Your task to perform on an android device: Show me recent news Image 0: 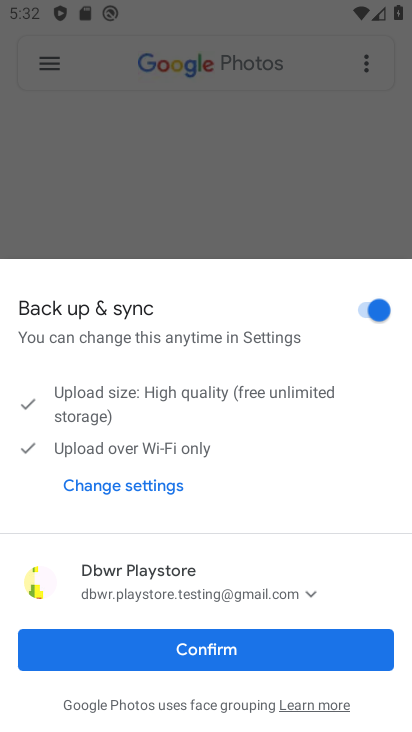
Step 0: click (218, 654)
Your task to perform on an android device: Show me recent news Image 1: 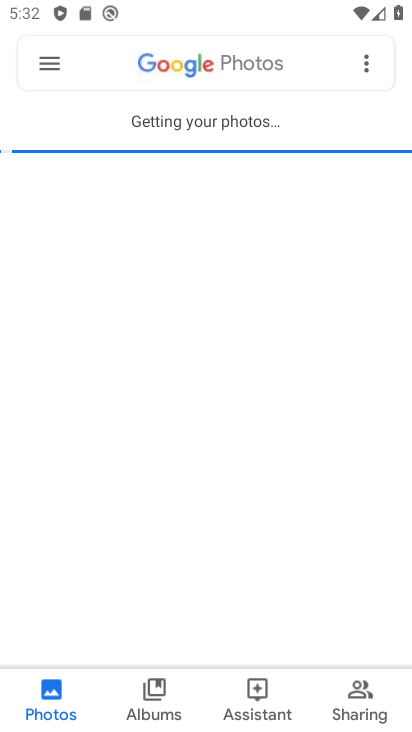
Step 1: press home button
Your task to perform on an android device: Show me recent news Image 2: 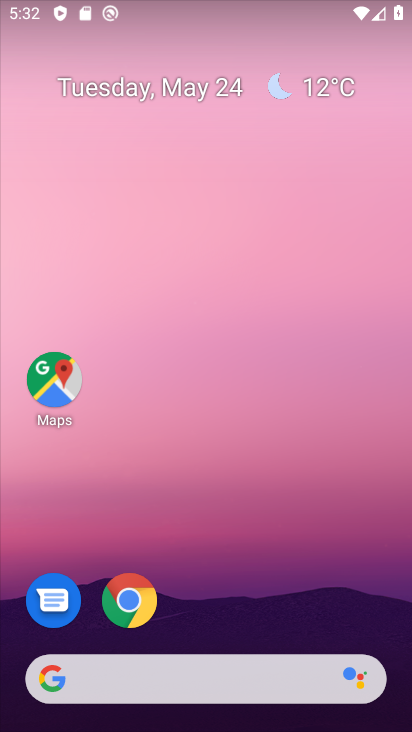
Step 2: drag from (271, 682) to (403, 731)
Your task to perform on an android device: Show me recent news Image 3: 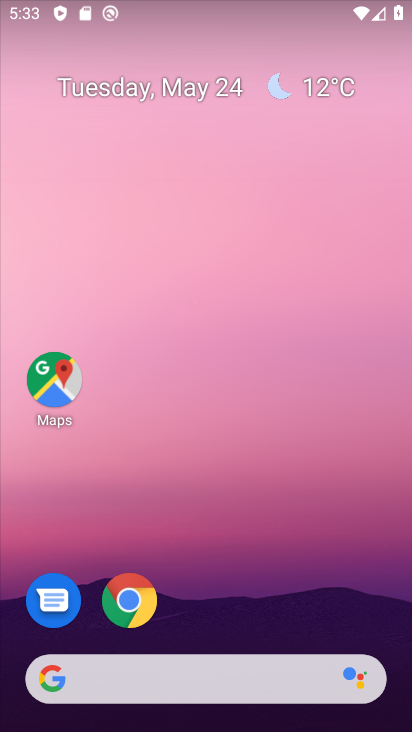
Step 3: drag from (242, 649) to (308, 36)
Your task to perform on an android device: Show me recent news Image 4: 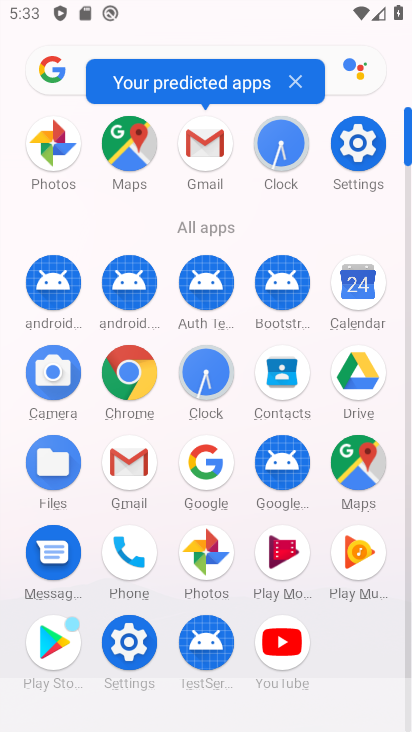
Step 4: click (219, 73)
Your task to perform on an android device: Show me recent news Image 5: 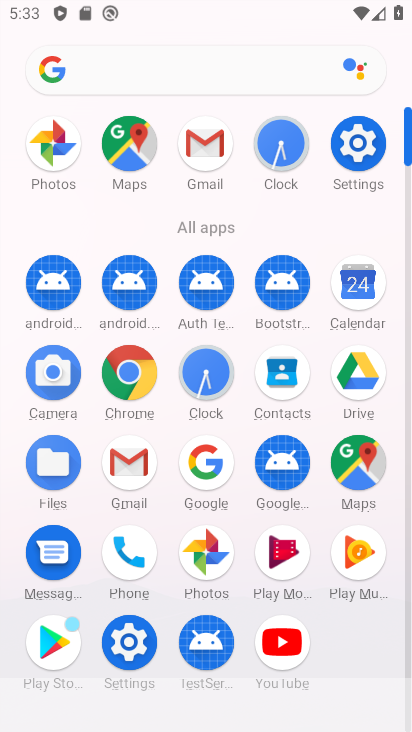
Step 5: click (146, 375)
Your task to perform on an android device: Show me recent news Image 6: 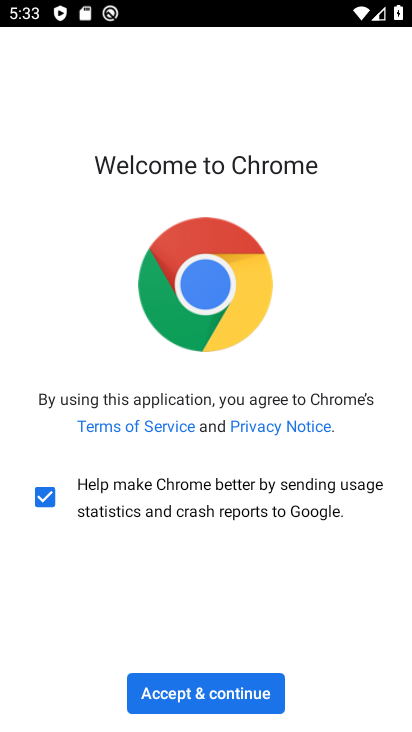
Step 6: click (194, 674)
Your task to perform on an android device: Show me recent news Image 7: 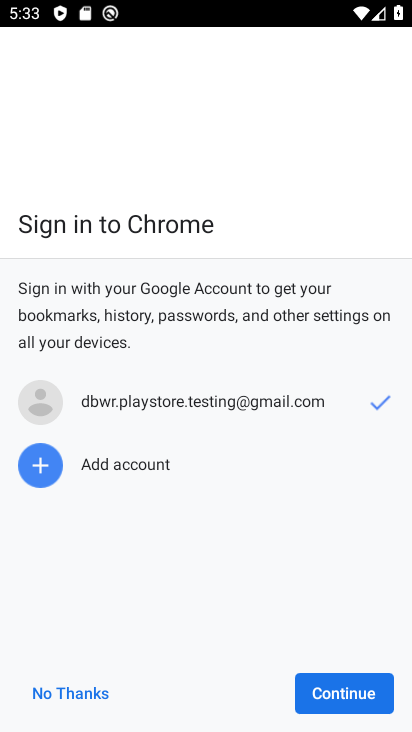
Step 7: click (80, 694)
Your task to perform on an android device: Show me recent news Image 8: 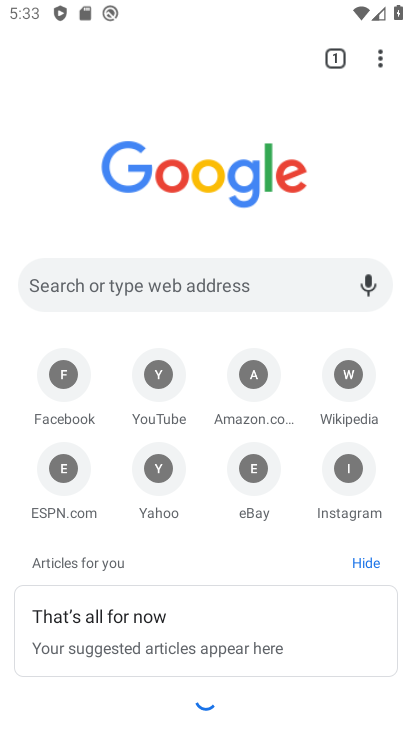
Step 8: click (270, 67)
Your task to perform on an android device: Show me recent news Image 9: 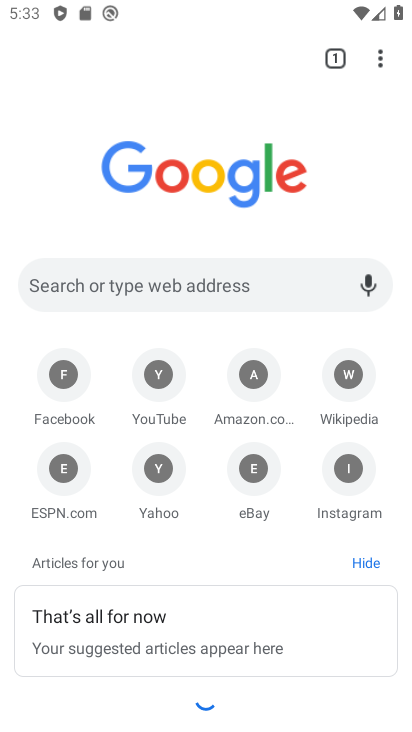
Step 9: click (270, 67)
Your task to perform on an android device: Show me recent news Image 10: 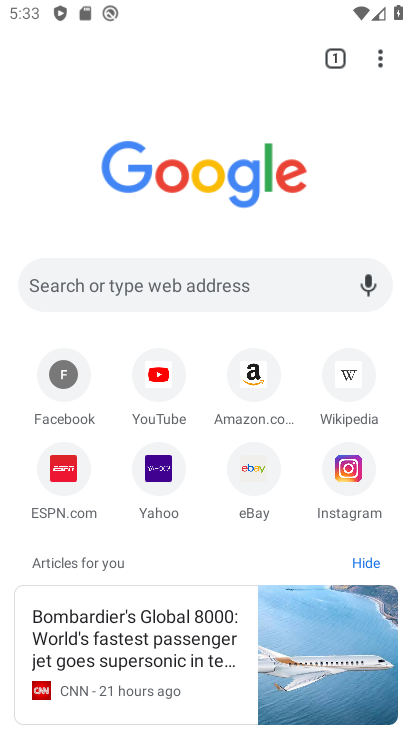
Step 10: click (234, 298)
Your task to perform on an android device: Show me recent news Image 11: 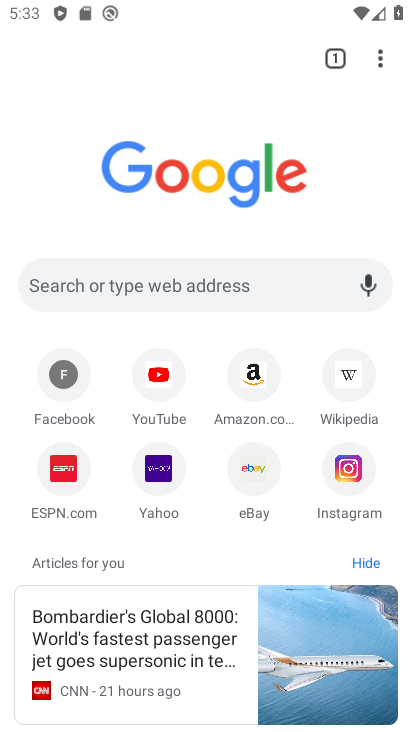
Step 11: click (234, 298)
Your task to perform on an android device: Show me recent news Image 12: 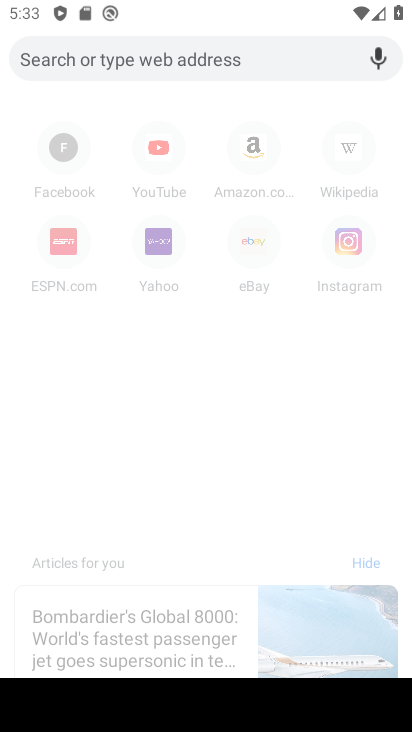
Step 12: type "recent news"
Your task to perform on an android device: Show me recent news Image 13: 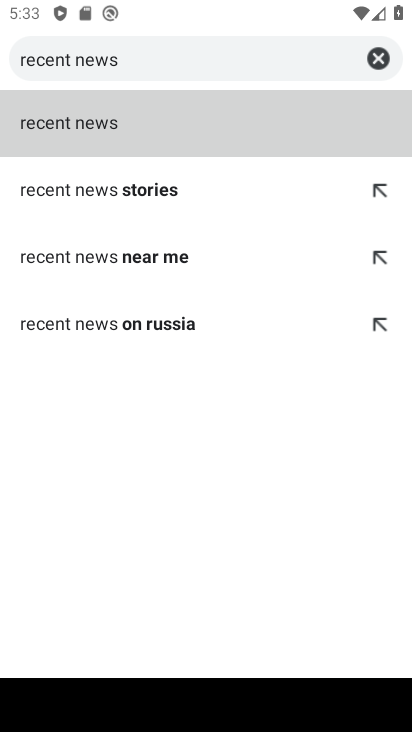
Step 13: click (133, 133)
Your task to perform on an android device: Show me recent news Image 14: 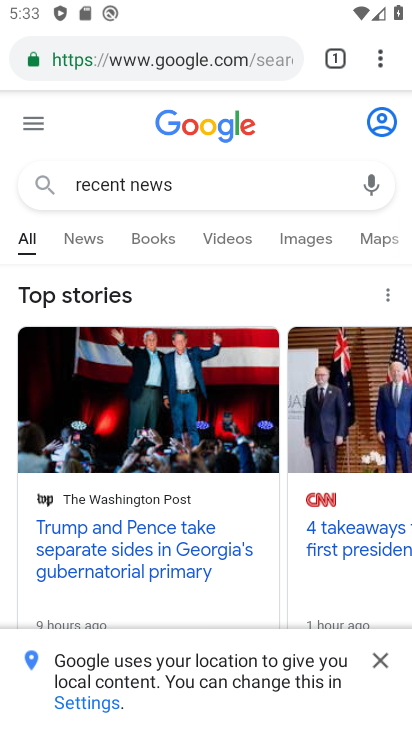
Step 14: task complete